Your task to perform on an android device: visit the assistant section in the google photos Image 0: 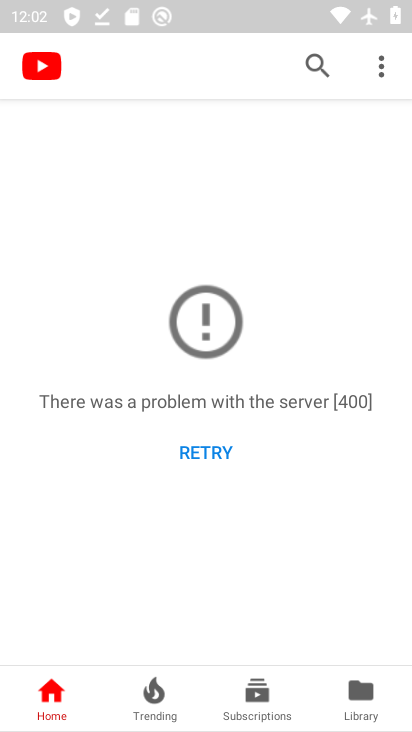
Step 0: press home button
Your task to perform on an android device: visit the assistant section in the google photos Image 1: 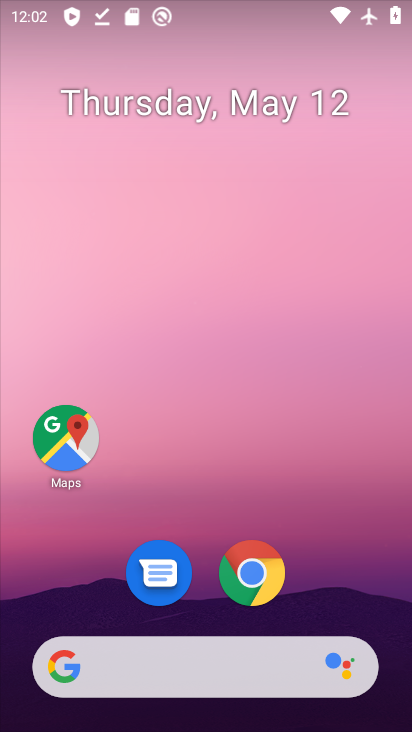
Step 1: drag from (327, 562) to (325, 189)
Your task to perform on an android device: visit the assistant section in the google photos Image 2: 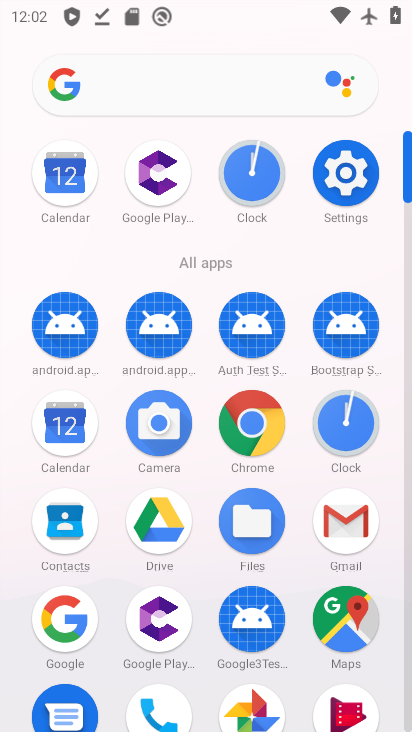
Step 2: click (256, 699)
Your task to perform on an android device: visit the assistant section in the google photos Image 3: 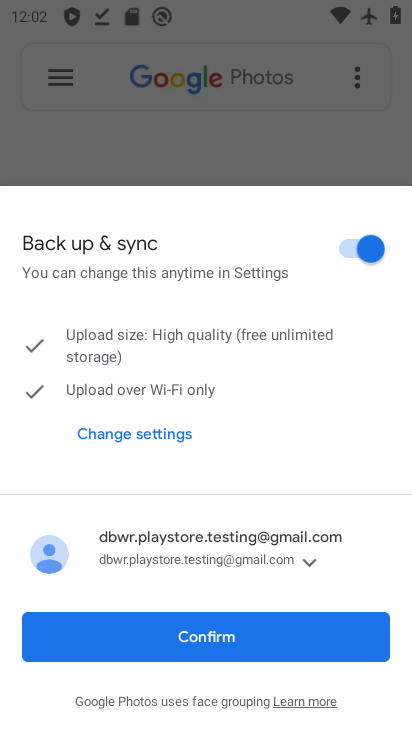
Step 3: click (254, 648)
Your task to perform on an android device: visit the assistant section in the google photos Image 4: 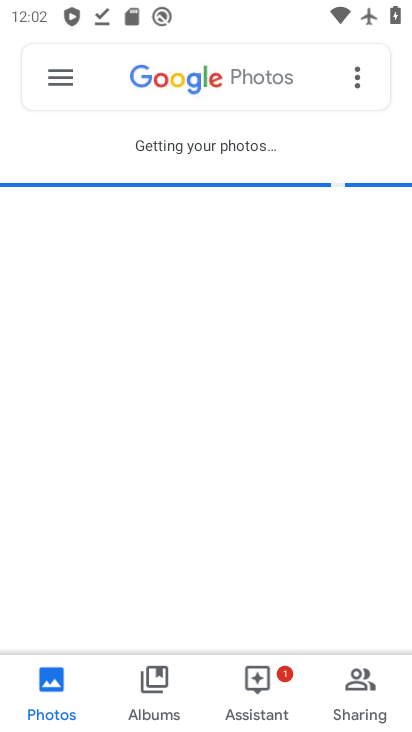
Step 4: click (262, 698)
Your task to perform on an android device: visit the assistant section in the google photos Image 5: 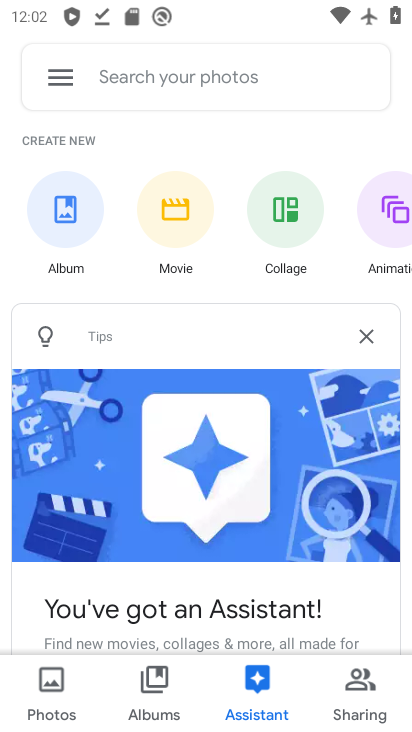
Step 5: task complete